Your task to perform on an android device: Open calendar and show me the second week of next month Image 0: 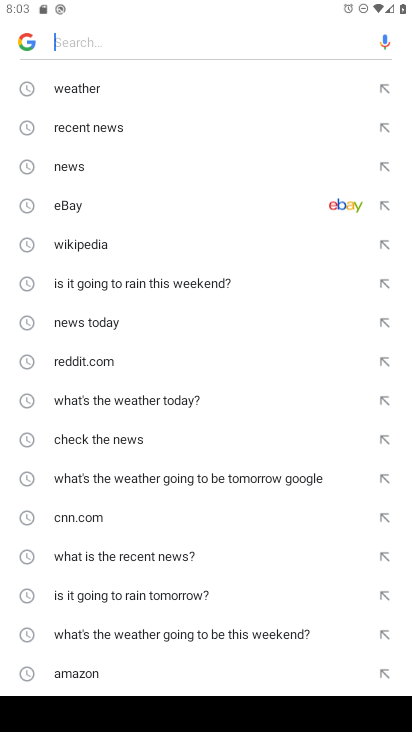
Step 0: press home button
Your task to perform on an android device: Open calendar and show me the second week of next month Image 1: 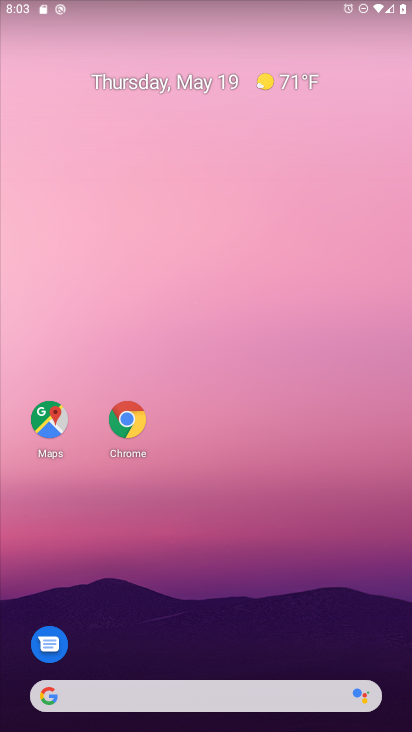
Step 1: drag from (179, 668) to (198, 214)
Your task to perform on an android device: Open calendar and show me the second week of next month Image 2: 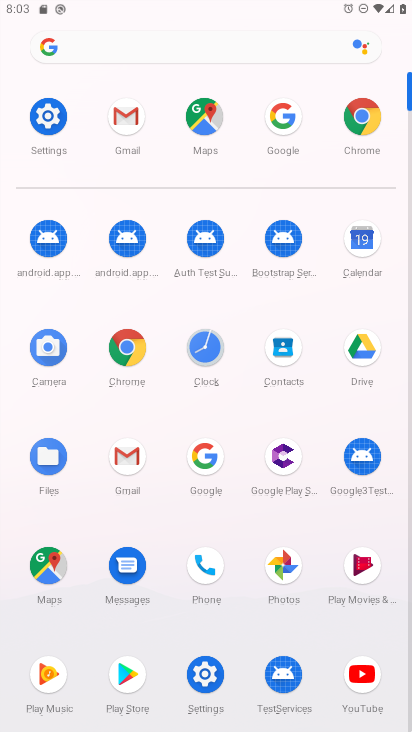
Step 2: click (362, 237)
Your task to perform on an android device: Open calendar and show me the second week of next month Image 3: 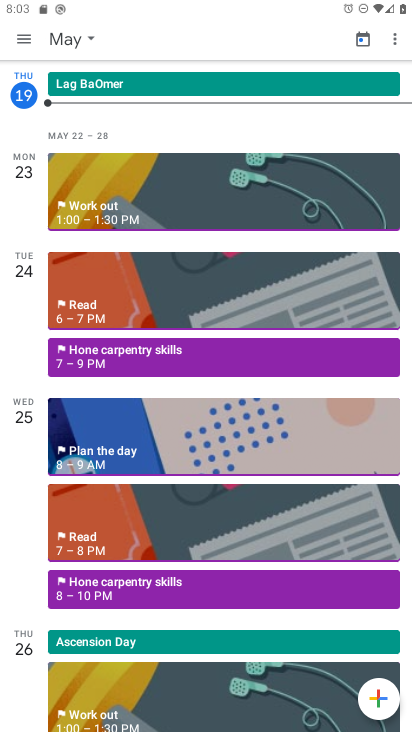
Step 3: click (73, 44)
Your task to perform on an android device: Open calendar and show me the second week of next month Image 4: 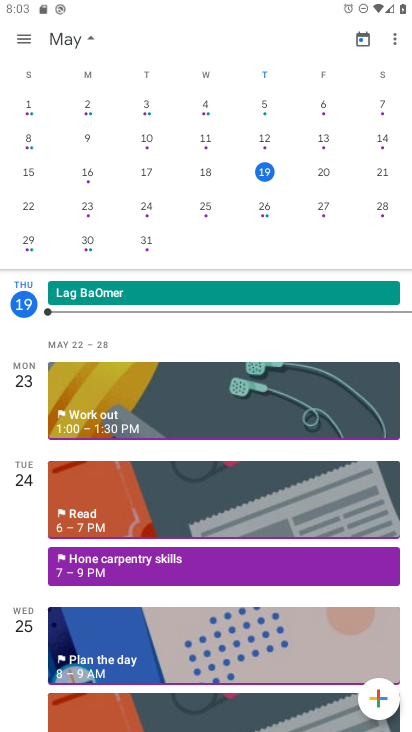
Step 4: drag from (341, 184) to (7, 187)
Your task to perform on an android device: Open calendar and show me the second week of next month Image 5: 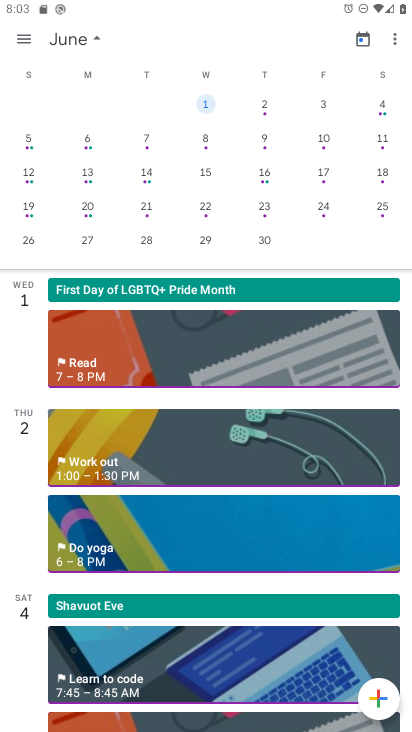
Step 5: click (29, 142)
Your task to perform on an android device: Open calendar and show me the second week of next month Image 6: 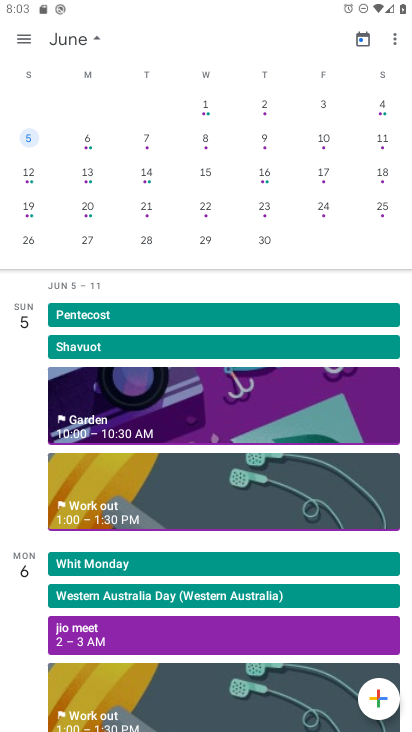
Step 6: task complete